Your task to perform on an android device: turn off sleep mode Image 0: 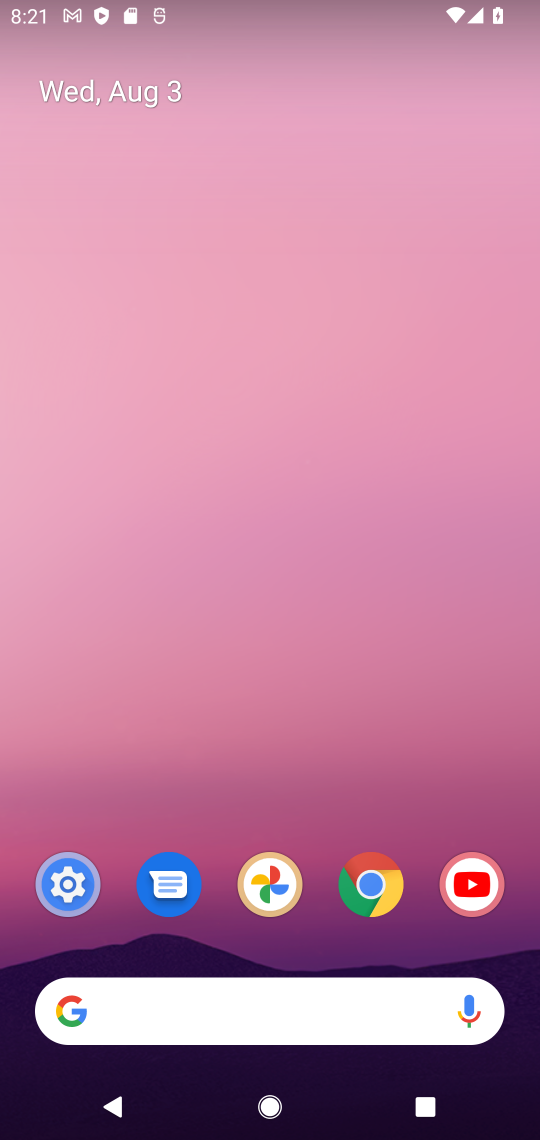
Step 0: click (72, 903)
Your task to perform on an android device: turn off sleep mode Image 1: 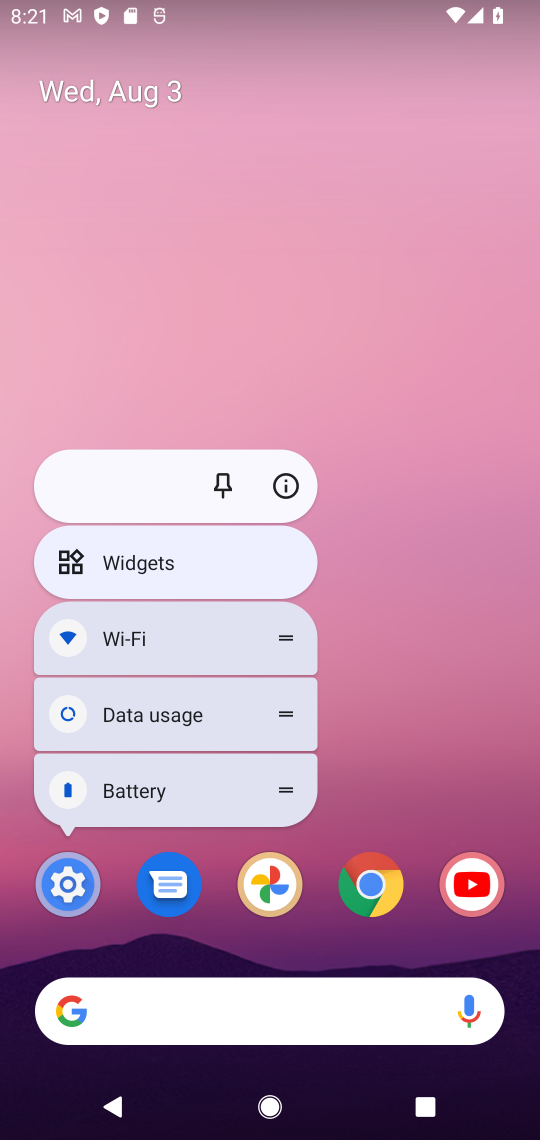
Step 1: click (59, 880)
Your task to perform on an android device: turn off sleep mode Image 2: 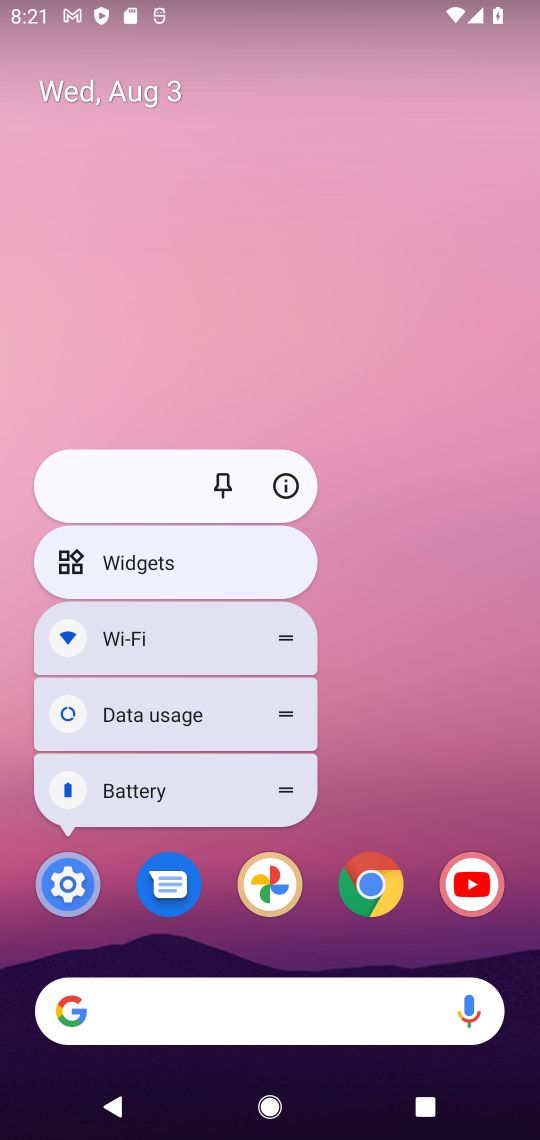
Step 2: click (59, 890)
Your task to perform on an android device: turn off sleep mode Image 3: 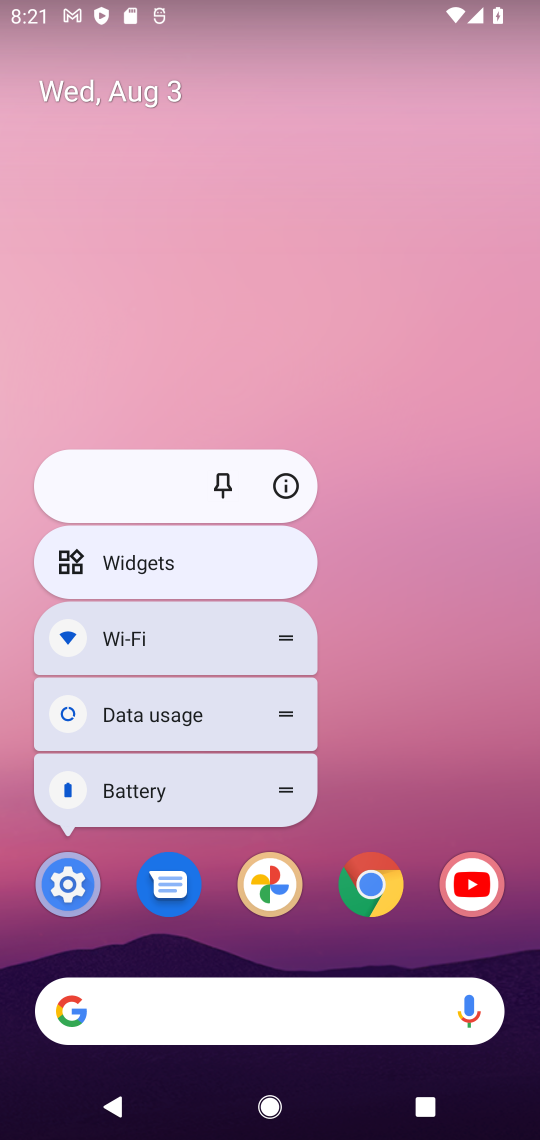
Step 3: click (59, 883)
Your task to perform on an android device: turn off sleep mode Image 4: 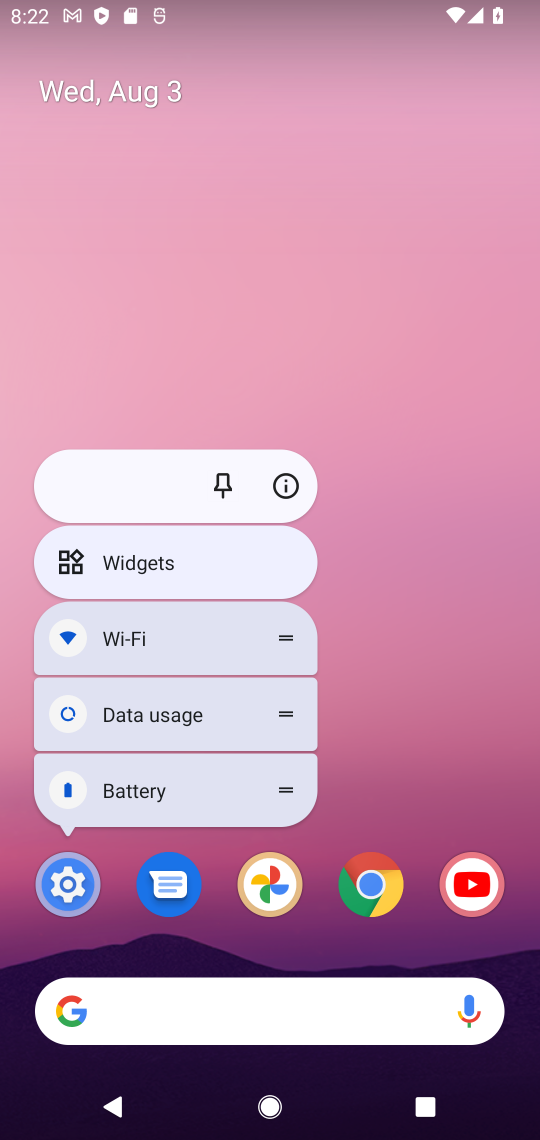
Step 4: click (80, 896)
Your task to perform on an android device: turn off sleep mode Image 5: 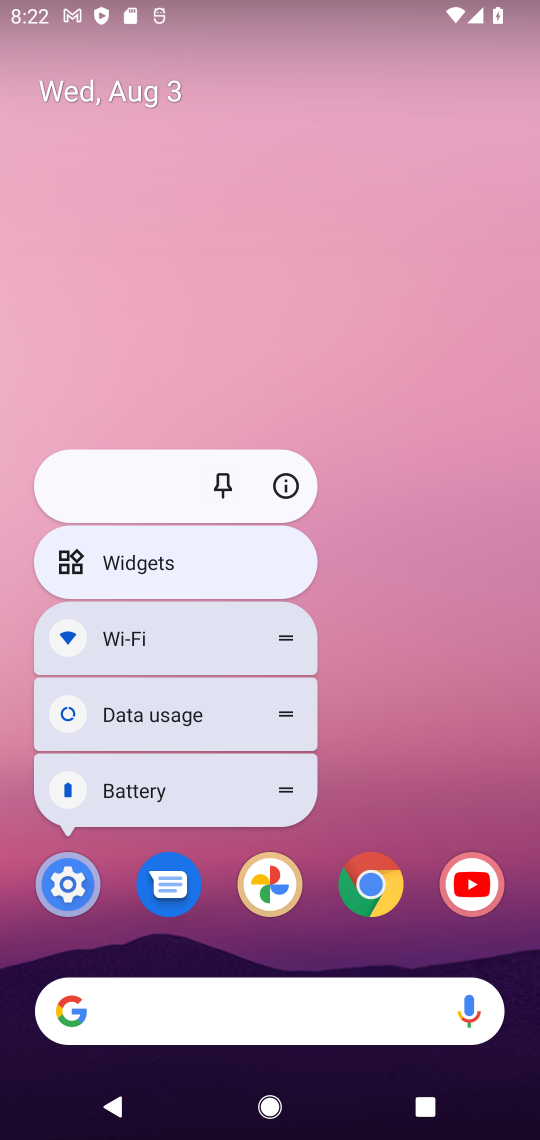
Step 5: task complete